Your task to perform on an android device: Open Google Chrome and click the shortcut for Amazon.com Image 0: 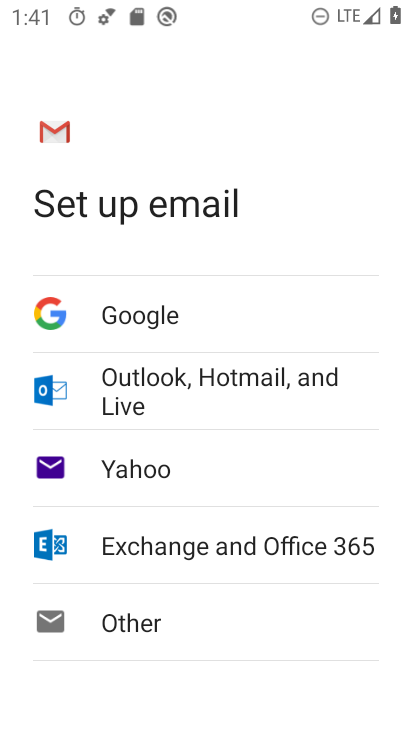
Step 0: drag from (314, 519) to (242, 20)
Your task to perform on an android device: Open Google Chrome and click the shortcut for Amazon.com Image 1: 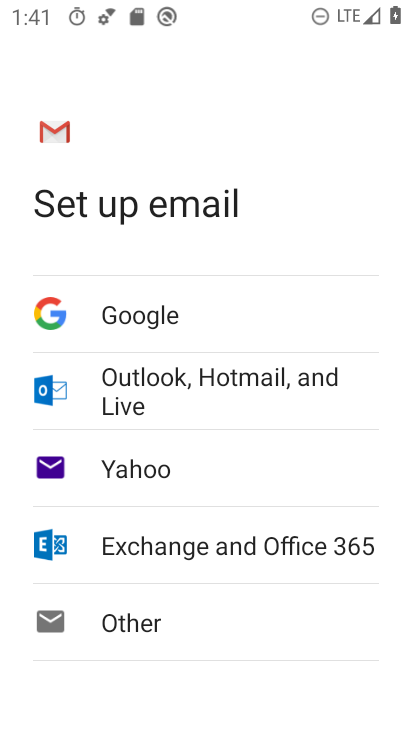
Step 1: press home button
Your task to perform on an android device: Open Google Chrome and click the shortcut for Amazon.com Image 2: 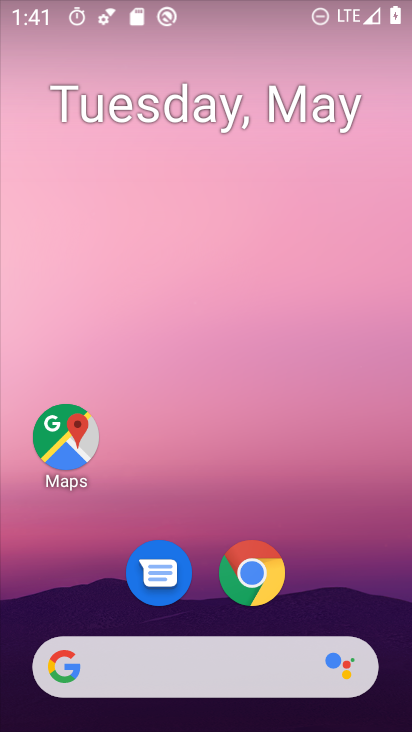
Step 2: click (250, 577)
Your task to perform on an android device: Open Google Chrome and click the shortcut for Amazon.com Image 3: 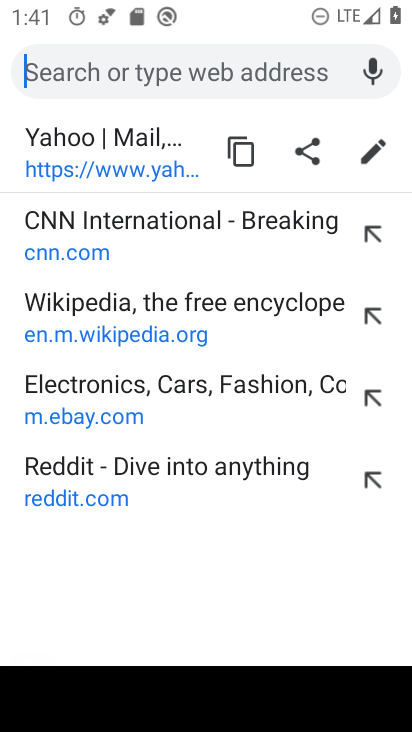
Step 3: click (233, 85)
Your task to perform on an android device: Open Google Chrome and click the shortcut for Amazon.com Image 4: 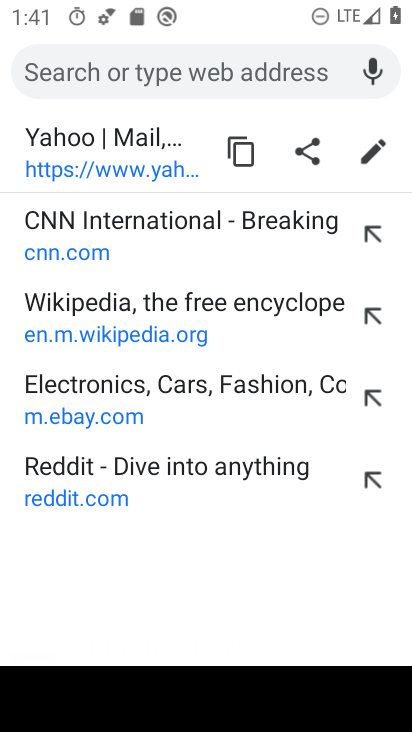
Step 4: type "amazon.com"
Your task to perform on an android device: Open Google Chrome and click the shortcut for Amazon.com Image 5: 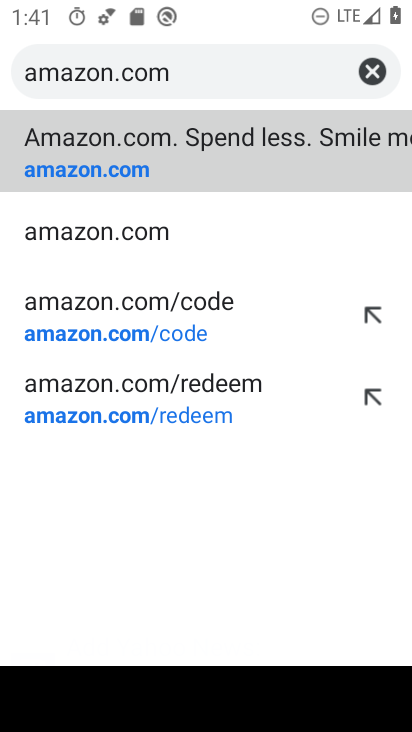
Step 5: click (121, 137)
Your task to perform on an android device: Open Google Chrome and click the shortcut for Amazon.com Image 6: 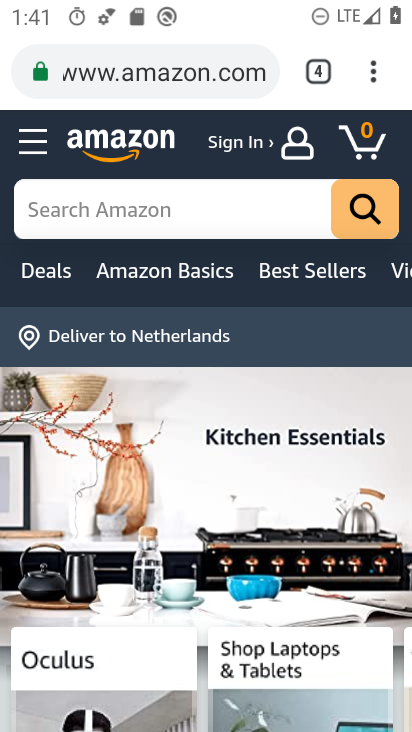
Step 6: task complete